Your task to perform on an android device: Go to notification settings Image 0: 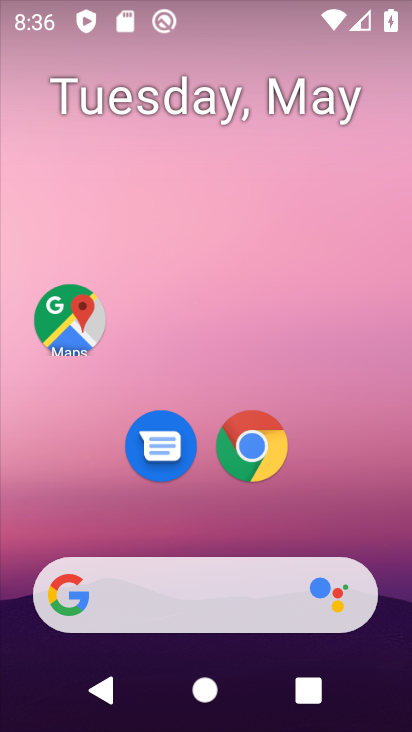
Step 0: drag from (356, 486) to (370, 14)
Your task to perform on an android device: Go to notification settings Image 1: 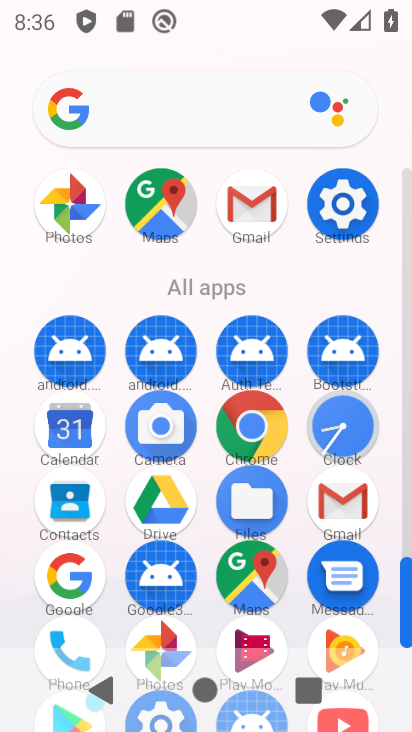
Step 1: click (330, 215)
Your task to perform on an android device: Go to notification settings Image 2: 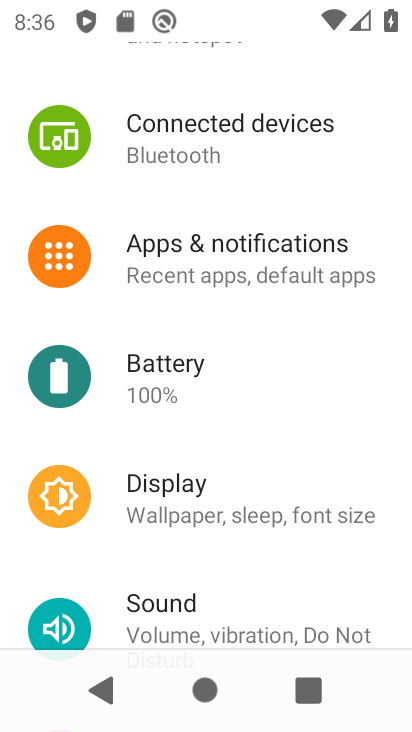
Step 2: click (212, 239)
Your task to perform on an android device: Go to notification settings Image 3: 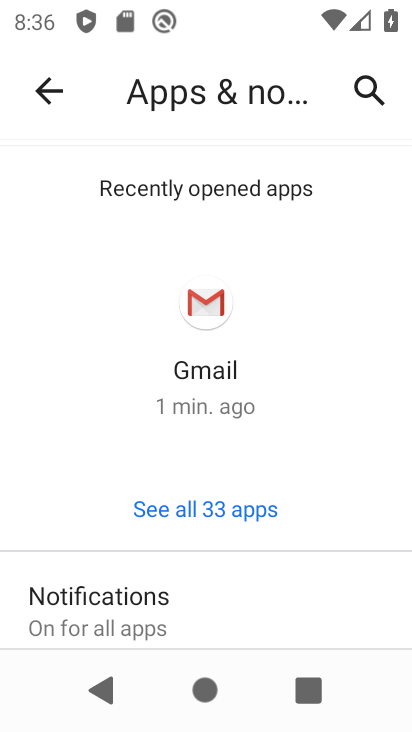
Step 3: click (124, 583)
Your task to perform on an android device: Go to notification settings Image 4: 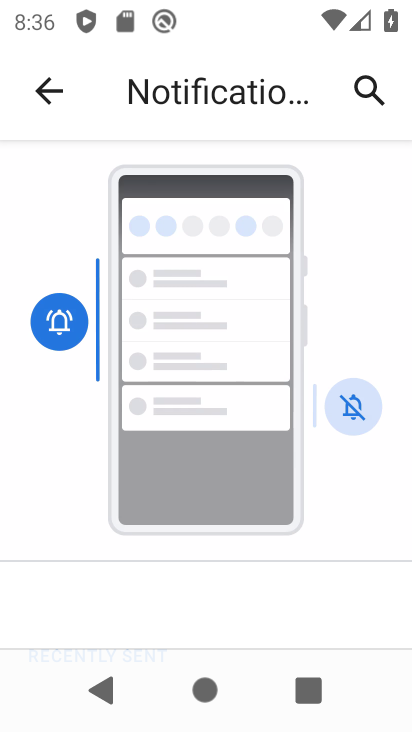
Step 4: task complete